Your task to perform on an android device: Show me recent news Image 0: 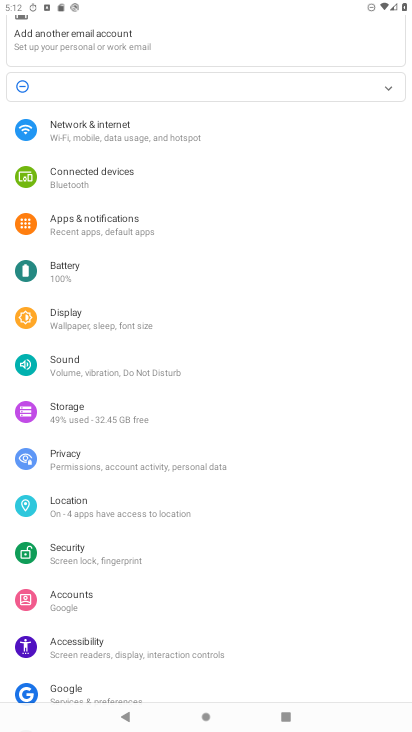
Step 0: press home button
Your task to perform on an android device: Show me recent news Image 1: 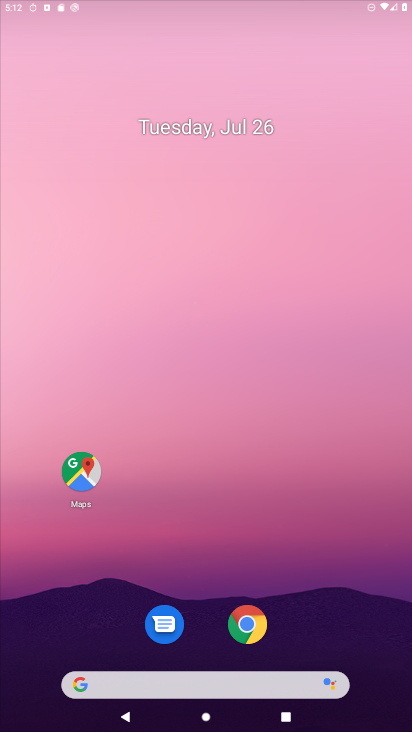
Step 1: drag from (271, 681) to (199, 28)
Your task to perform on an android device: Show me recent news Image 2: 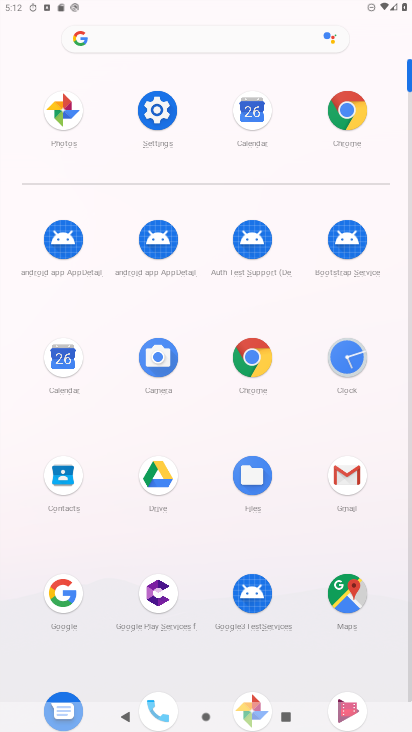
Step 2: click (249, 357)
Your task to perform on an android device: Show me recent news Image 3: 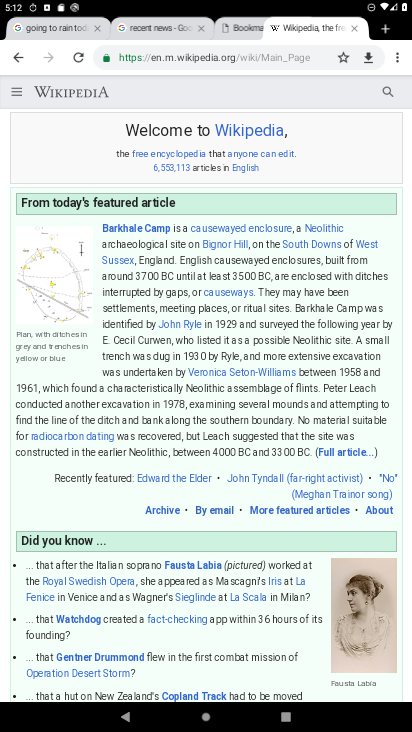
Step 3: click (183, 53)
Your task to perform on an android device: Show me recent news Image 4: 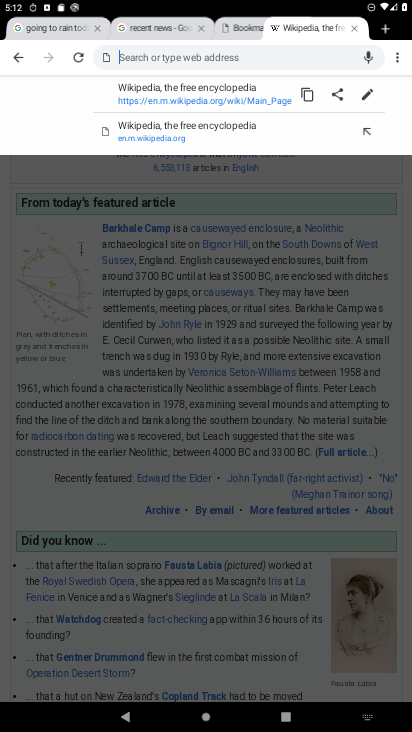
Step 4: type "recent news"
Your task to perform on an android device: Show me recent news Image 5: 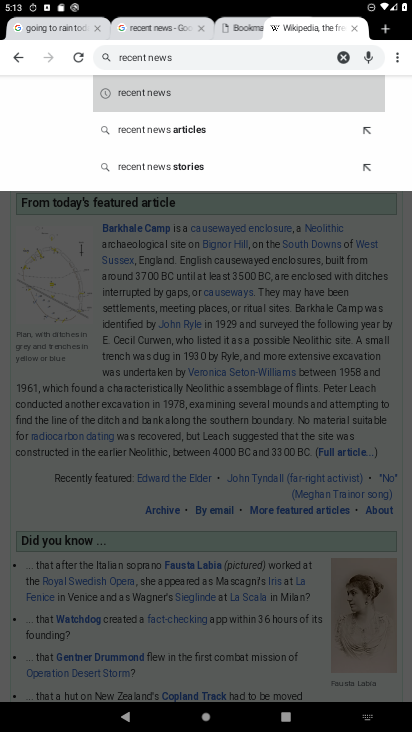
Step 5: click (147, 92)
Your task to perform on an android device: Show me recent news Image 6: 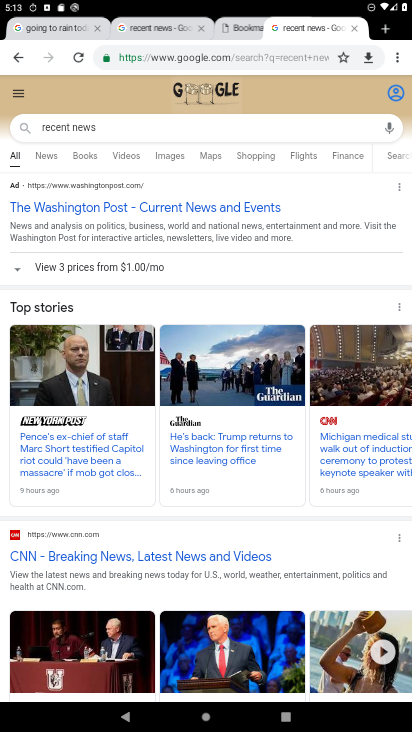
Step 6: task complete